Your task to perform on an android device: Open calendar and show me the second week of next month Image 0: 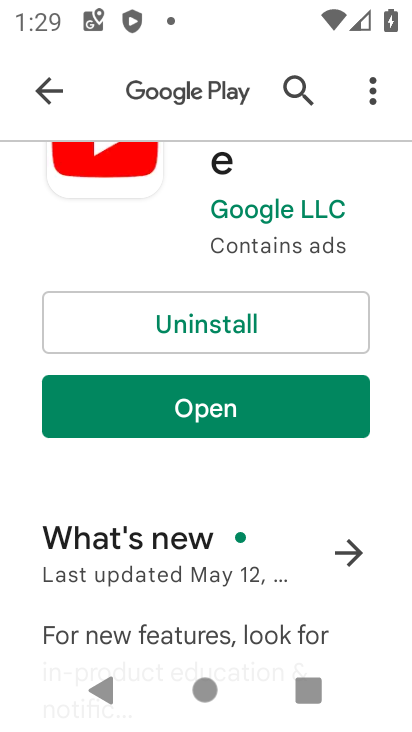
Step 0: press home button
Your task to perform on an android device: Open calendar and show me the second week of next month Image 1: 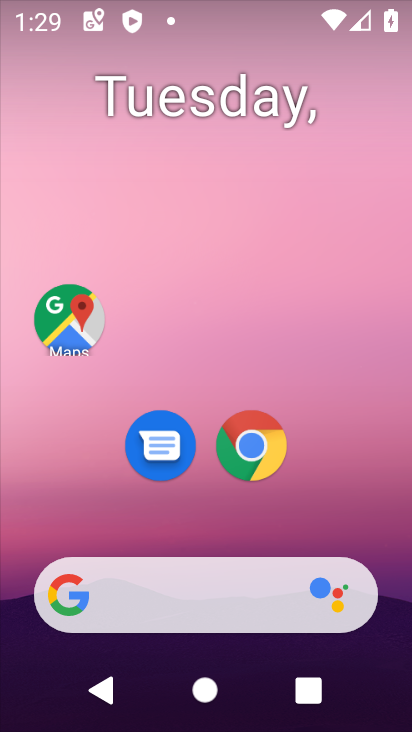
Step 1: drag from (306, 500) to (355, 101)
Your task to perform on an android device: Open calendar and show me the second week of next month Image 2: 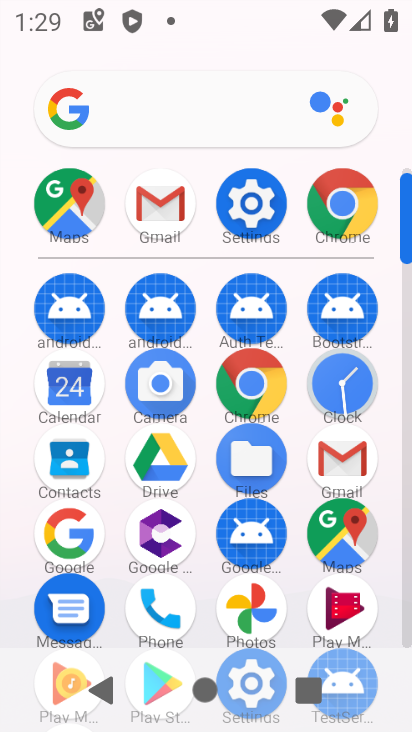
Step 2: click (54, 400)
Your task to perform on an android device: Open calendar and show me the second week of next month Image 3: 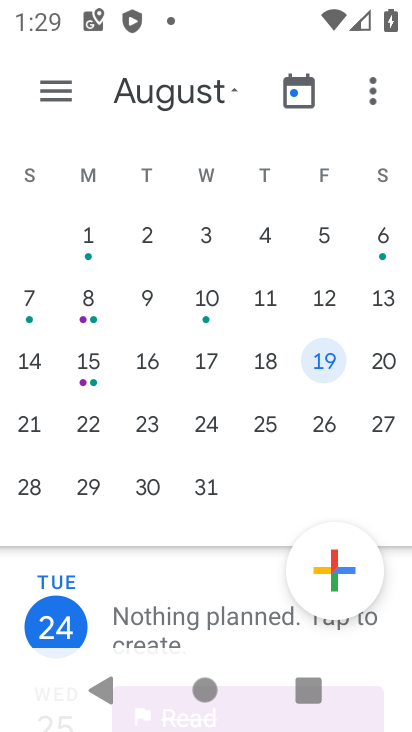
Step 3: click (35, 364)
Your task to perform on an android device: Open calendar and show me the second week of next month Image 4: 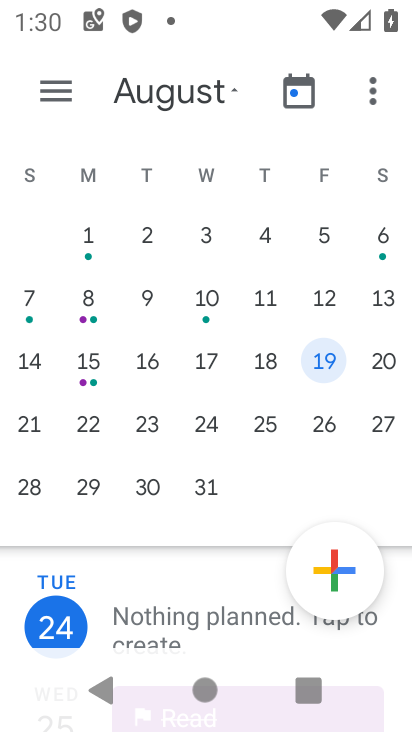
Step 4: click (42, 357)
Your task to perform on an android device: Open calendar and show me the second week of next month Image 5: 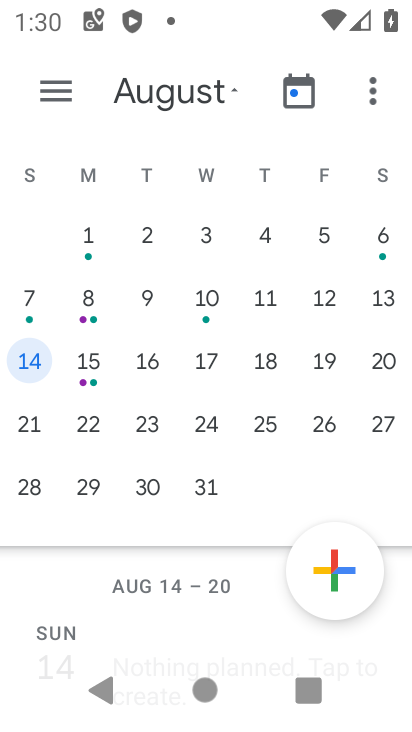
Step 5: task complete